Your task to perform on an android device: toggle improve location accuracy Image 0: 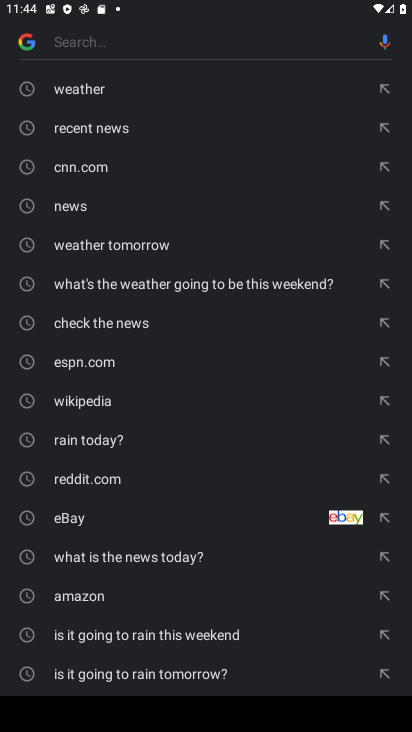
Step 0: press back button
Your task to perform on an android device: toggle improve location accuracy Image 1: 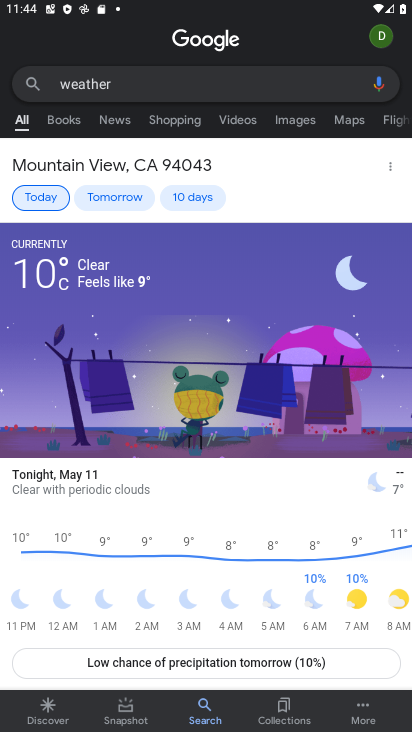
Step 1: press back button
Your task to perform on an android device: toggle improve location accuracy Image 2: 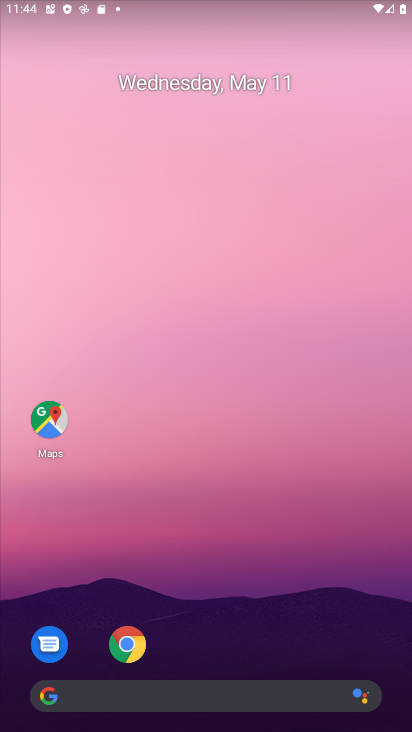
Step 2: drag from (231, 638) to (166, 304)
Your task to perform on an android device: toggle improve location accuracy Image 3: 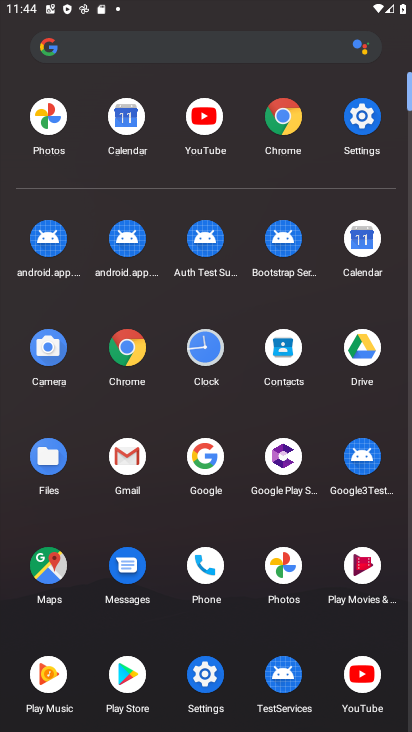
Step 3: click (349, 123)
Your task to perform on an android device: toggle improve location accuracy Image 4: 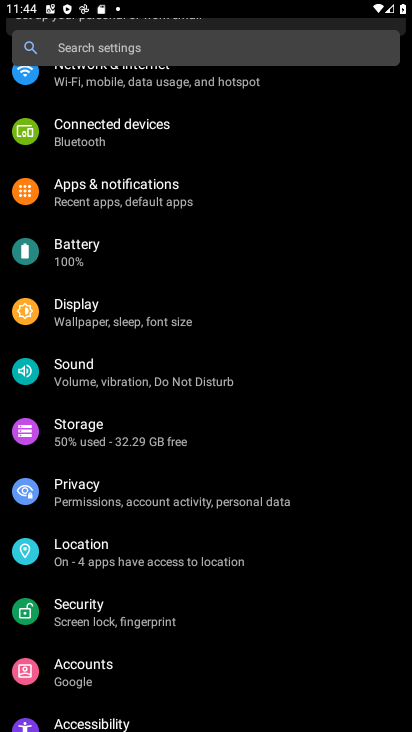
Step 4: click (232, 542)
Your task to perform on an android device: toggle improve location accuracy Image 5: 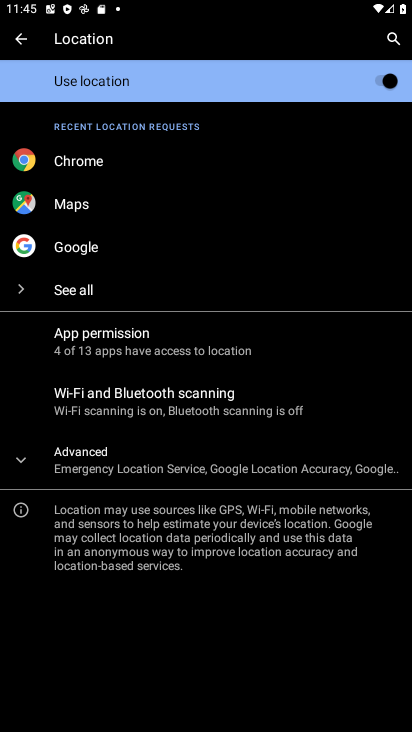
Step 5: click (205, 465)
Your task to perform on an android device: toggle improve location accuracy Image 6: 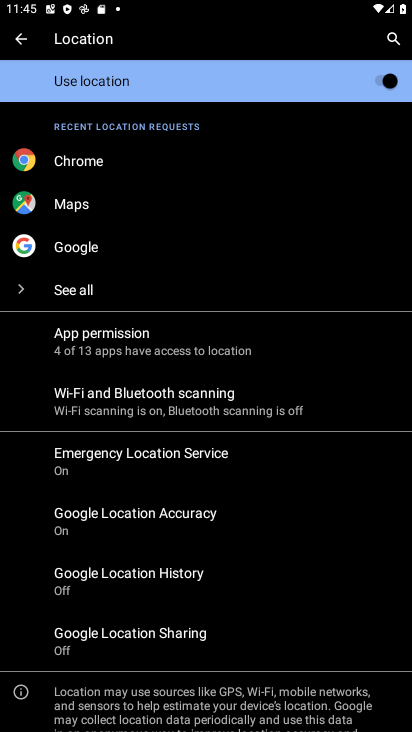
Step 6: click (190, 497)
Your task to perform on an android device: toggle improve location accuracy Image 7: 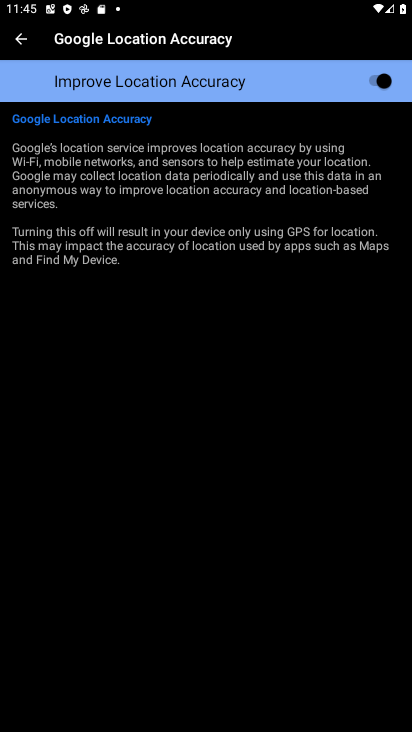
Step 7: click (355, 69)
Your task to perform on an android device: toggle improve location accuracy Image 8: 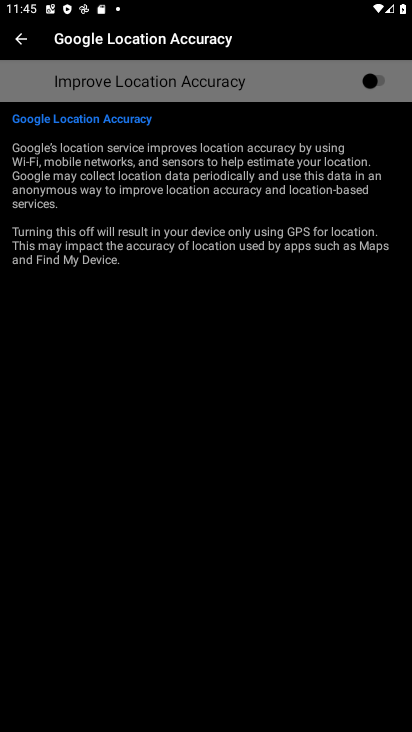
Step 8: task complete